Your task to perform on an android device: open app "Skype" Image 0: 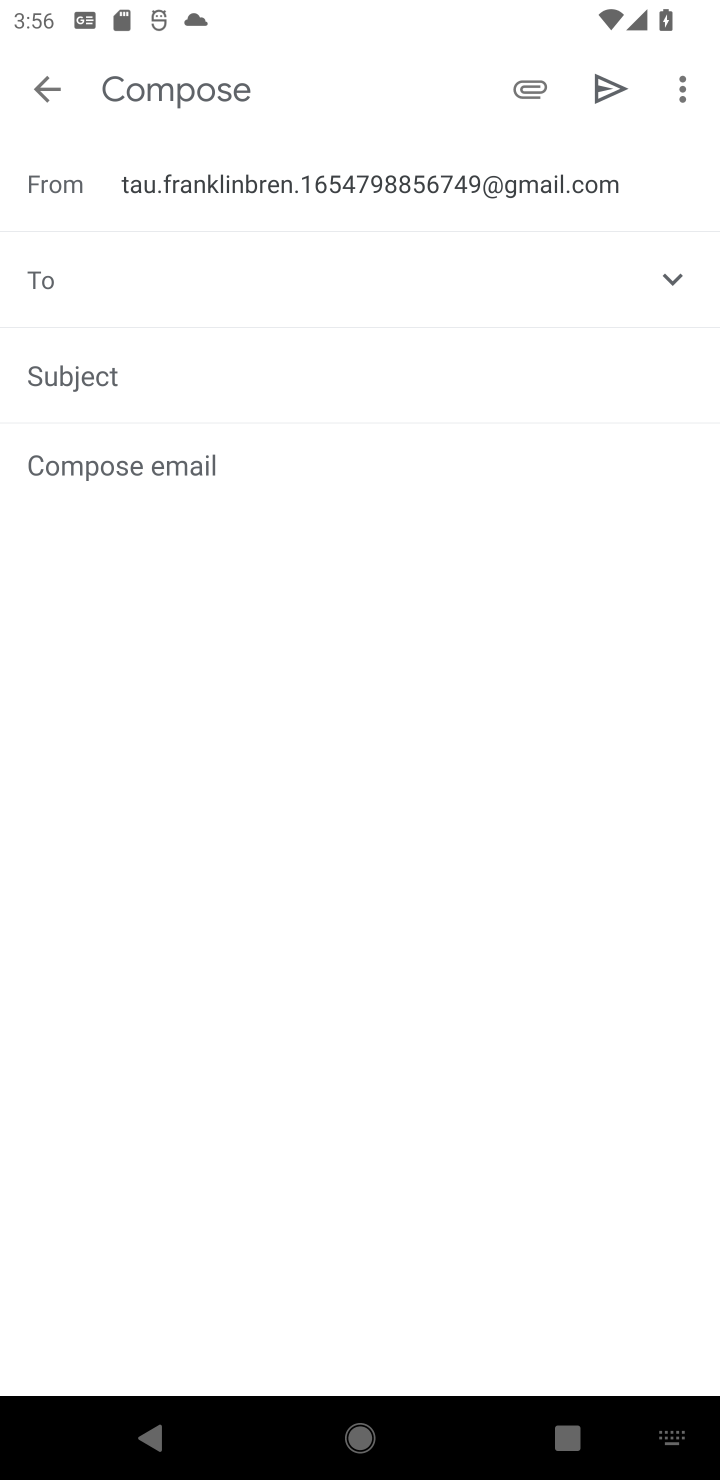
Step 0: press home button
Your task to perform on an android device: open app "Skype" Image 1: 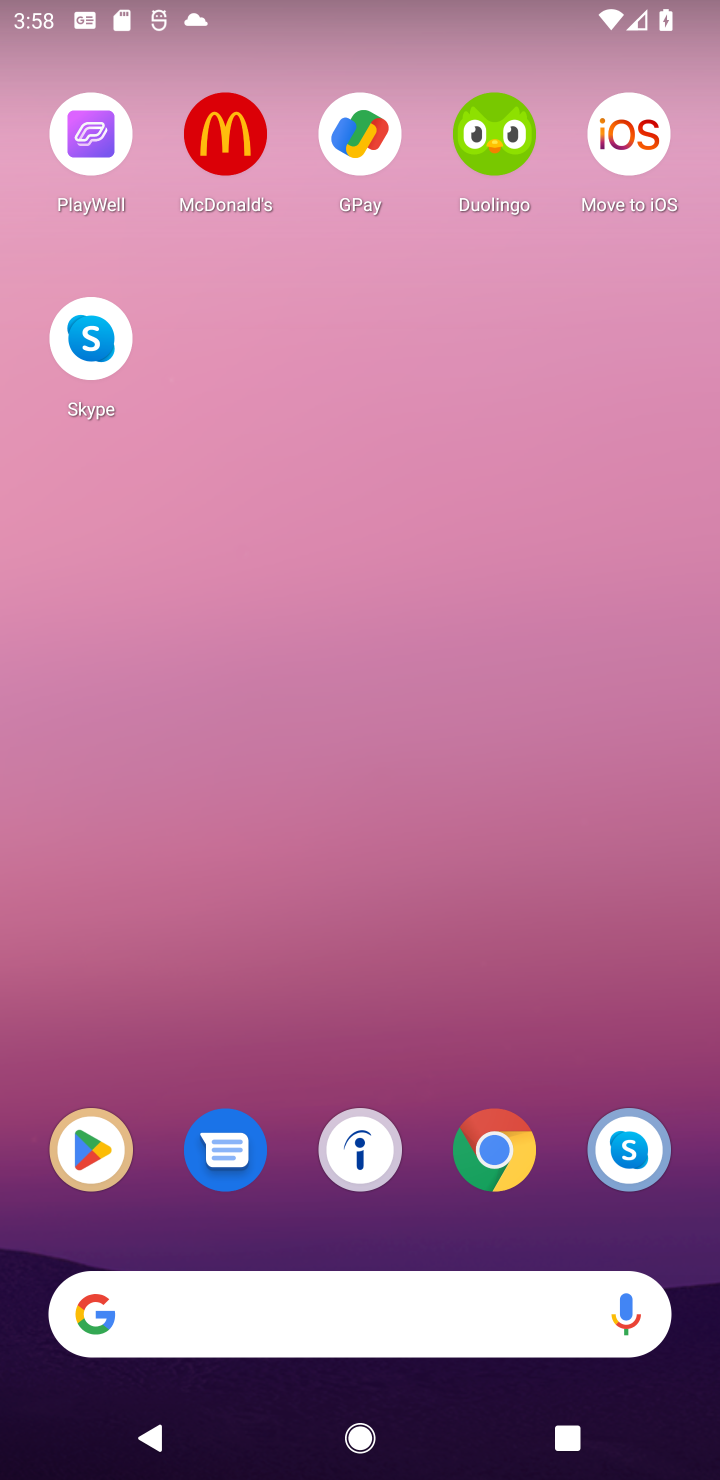
Step 1: click (80, 320)
Your task to perform on an android device: open app "Skype" Image 2: 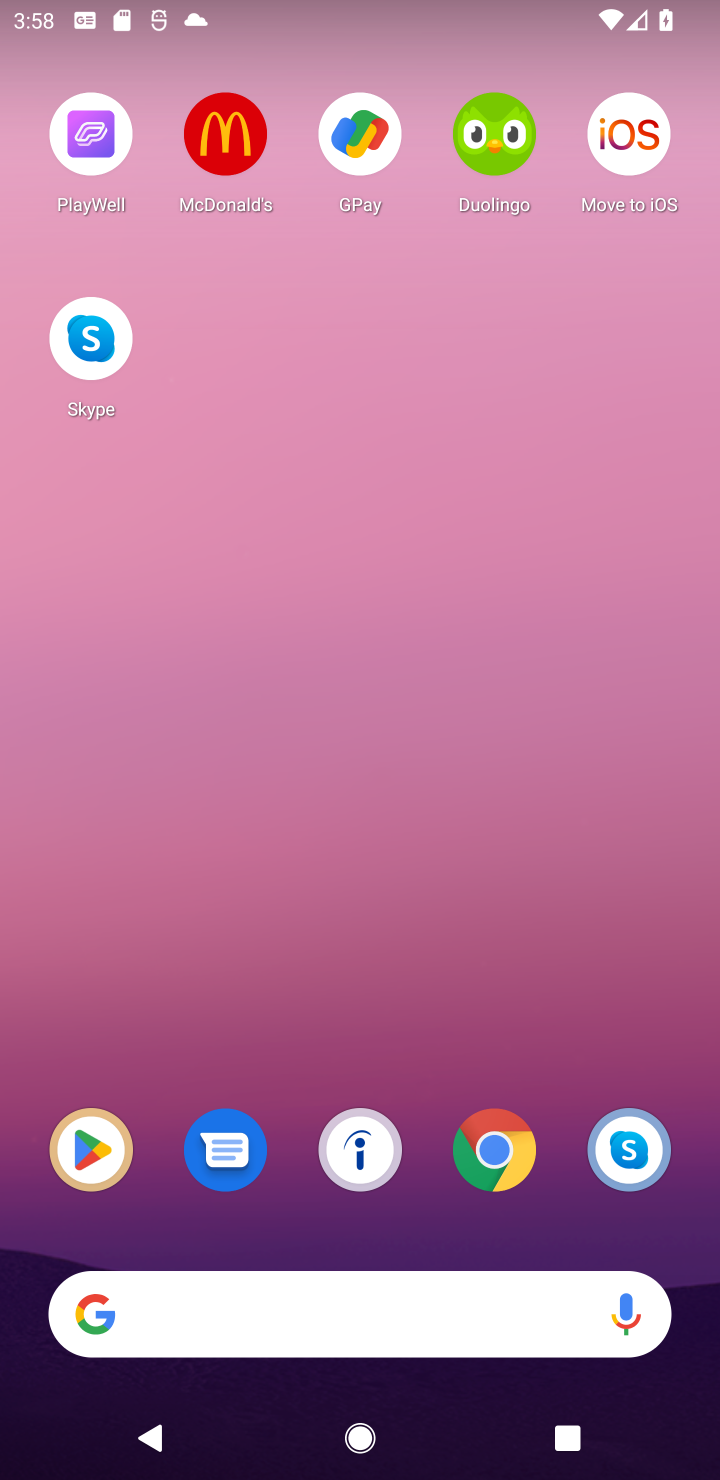
Step 2: task complete